Your task to perform on an android device: empty trash in google photos Image 0: 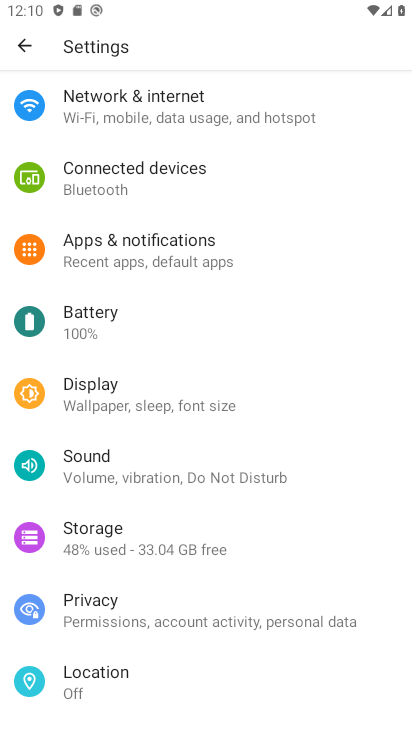
Step 0: press home button
Your task to perform on an android device: empty trash in google photos Image 1: 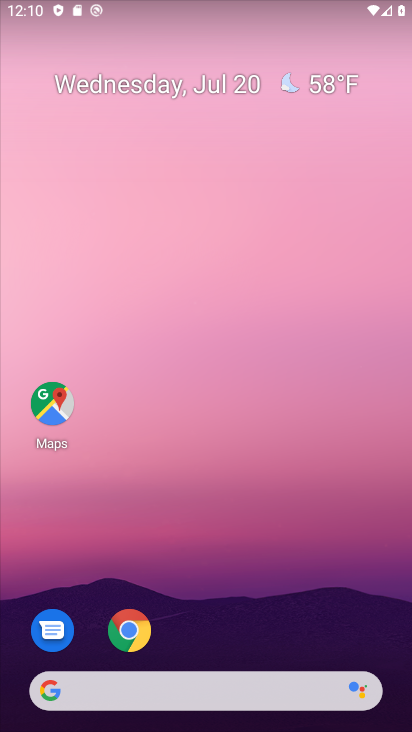
Step 1: drag from (164, 689) to (326, 180)
Your task to perform on an android device: empty trash in google photos Image 2: 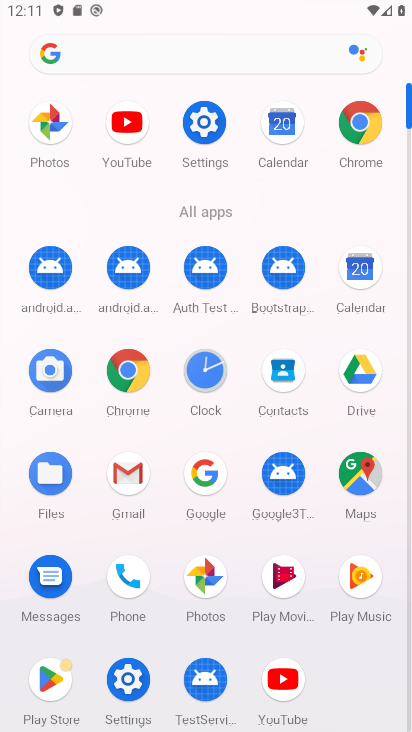
Step 2: click (209, 584)
Your task to perform on an android device: empty trash in google photos Image 3: 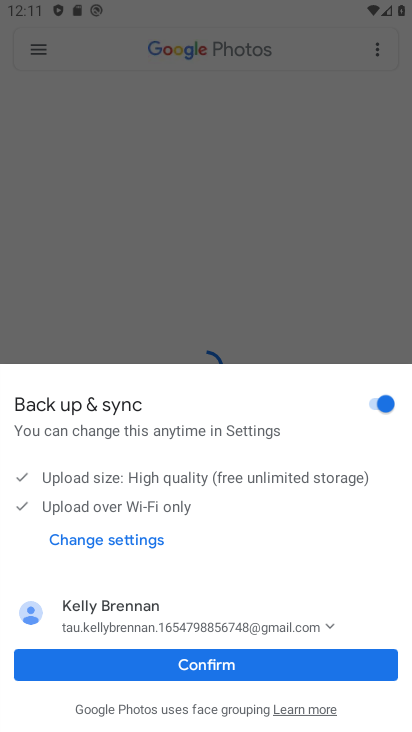
Step 3: click (212, 665)
Your task to perform on an android device: empty trash in google photos Image 4: 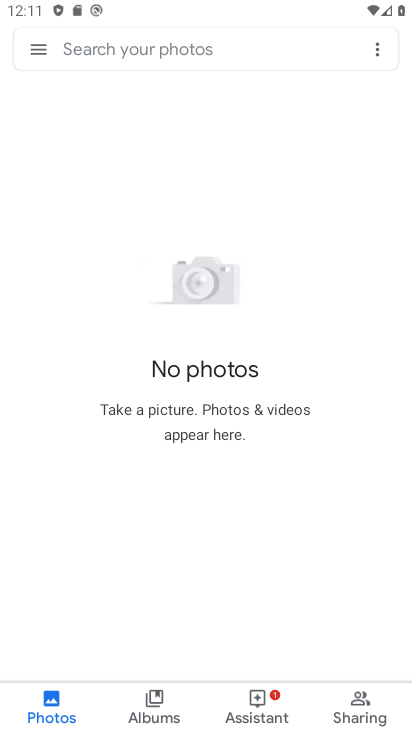
Step 4: click (40, 46)
Your task to perform on an android device: empty trash in google photos Image 5: 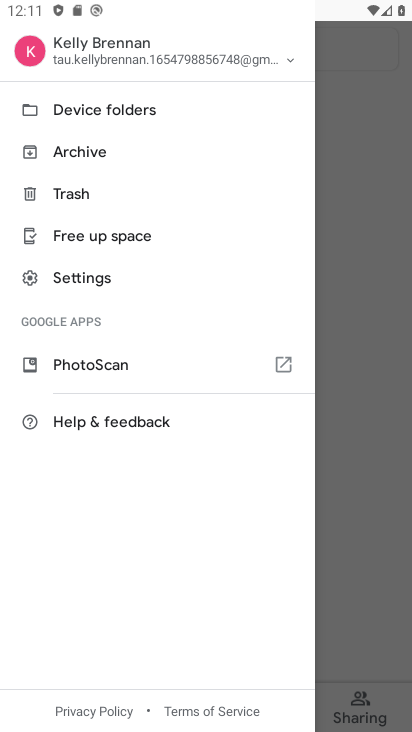
Step 5: click (71, 196)
Your task to perform on an android device: empty trash in google photos Image 6: 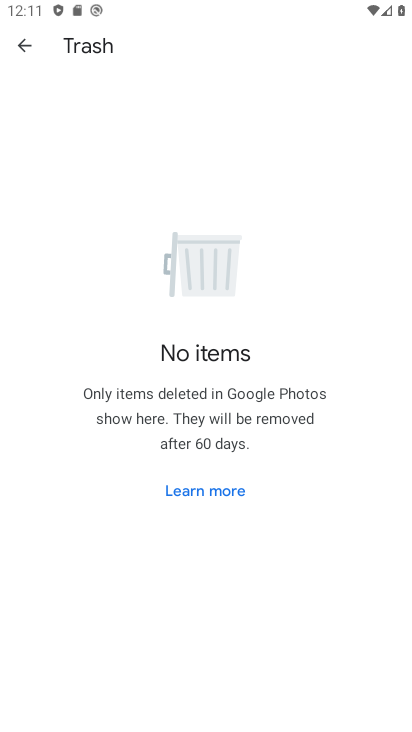
Step 6: task complete